Your task to perform on an android device: snooze an email in the gmail app Image 0: 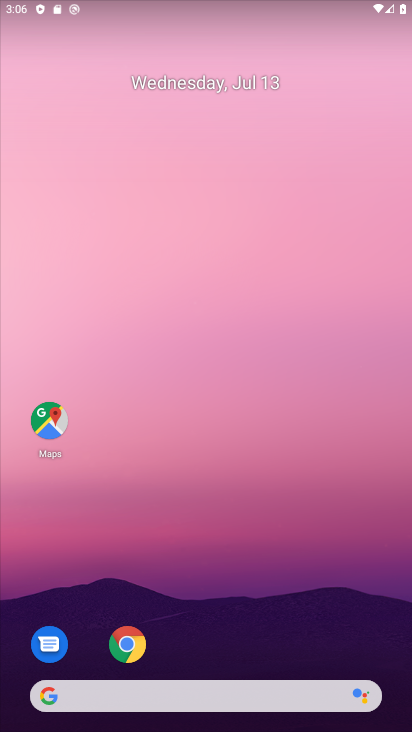
Step 0: drag from (204, 647) to (208, 214)
Your task to perform on an android device: snooze an email in the gmail app Image 1: 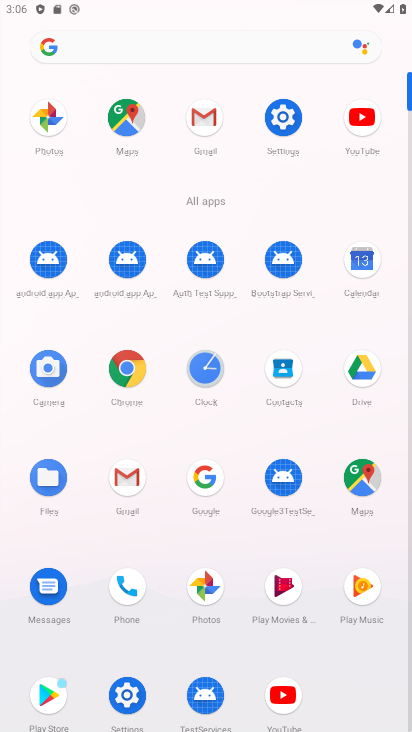
Step 1: click (215, 131)
Your task to perform on an android device: snooze an email in the gmail app Image 2: 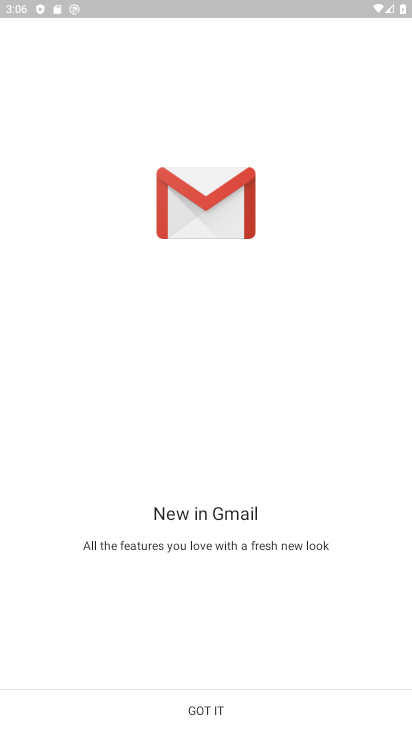
Step 2: click (221, 712)
Your task to perform on an android device: snooze an email in the gmail app Image 3: 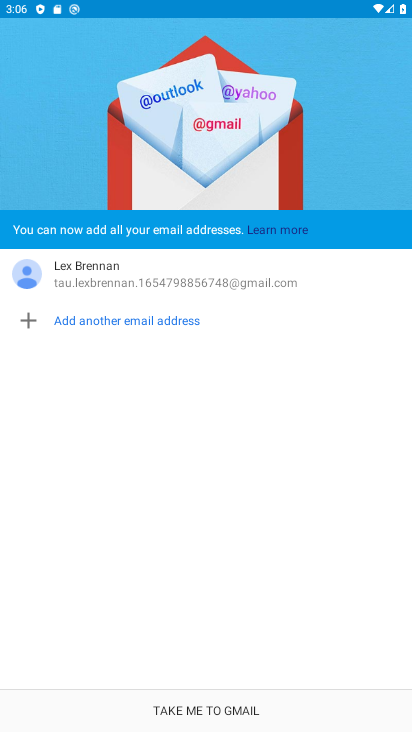
Step 3: click (222, 711)
Your task to perform on an android device: snooze an email in the gmail app Image 4: 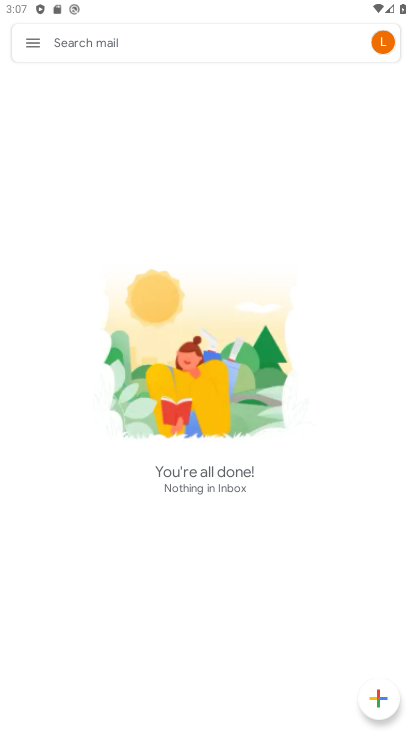
Step 4: click (30, 46)
Your task to perform on an android device: snooze an email in the gmail app Image 5: 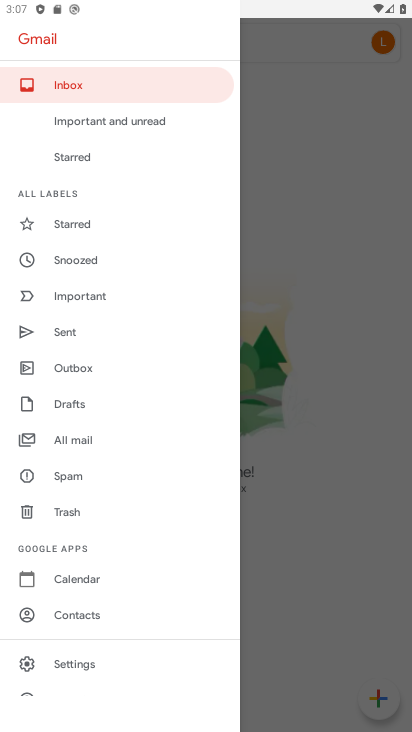
Step 5: click (78, 443)
Your task to perform on an android device: snooze an email in the gmail app Image 6: 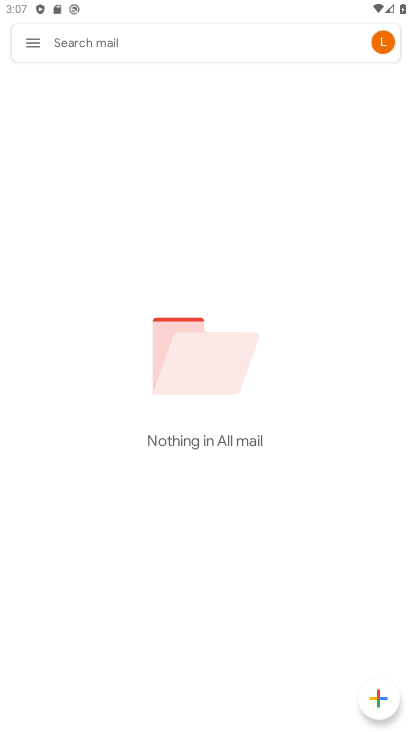
Step 6: task complete